Your task to perform on an android device: choose inbox layout in the gmail app Image 0: 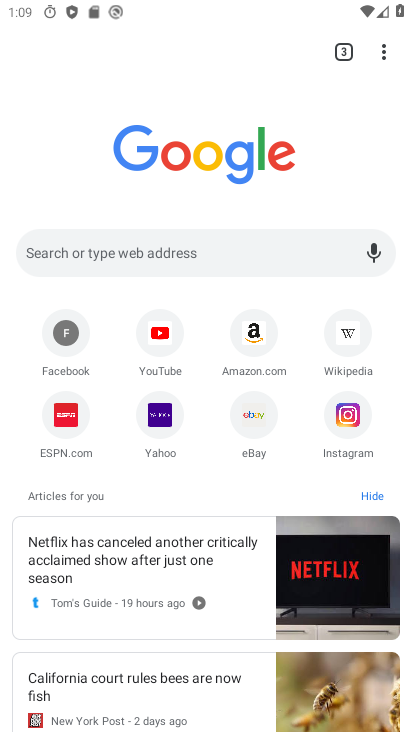
Step 0: drag from (379, 46) to (85, 154)
Your task to perform on an android device: choose inbox layout in the gmail app Image 1: 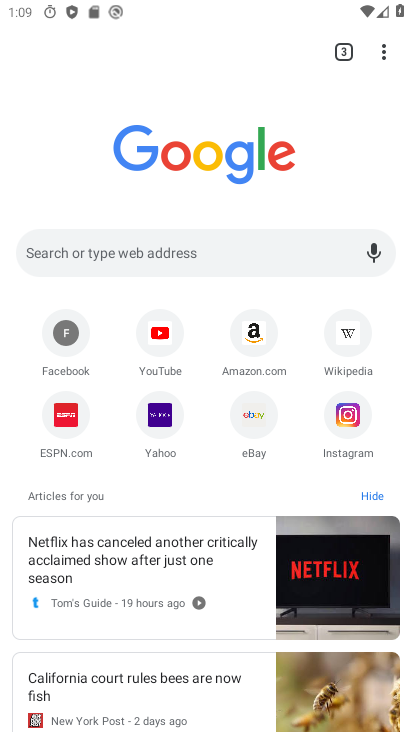
Step 1: press home button
Your task to perform on an android device: choose inbox layout in the gmail app Image 2: 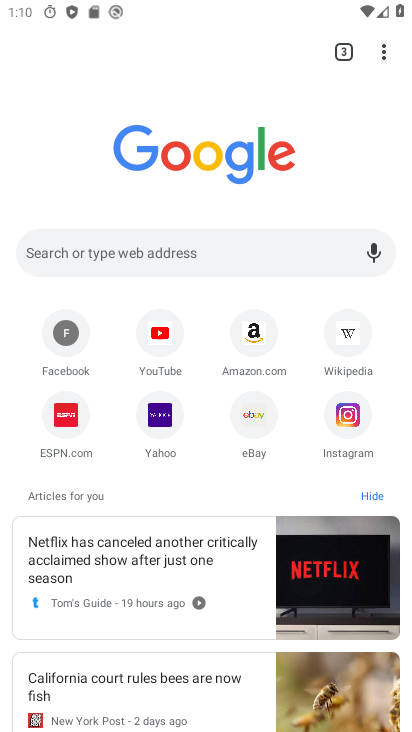
Step 2: drag from (148, 585) to (214, 170)
Your task to perform on an android device: choose inbox layout in the gmail app Image 3: 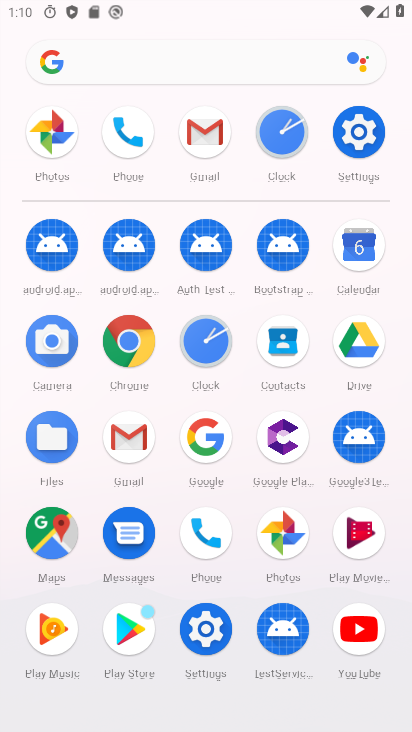
Step 3: click (131, 437)
Your task to perform on an android device: choose inbox layout in the gmail app Image 4: 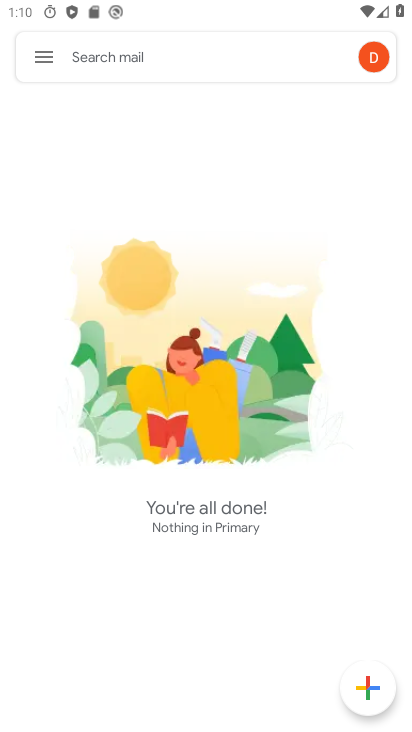
Step 4: click (37, 59)
Your task to perform on an android device: choose inbox layout in the gmail app Image 5: 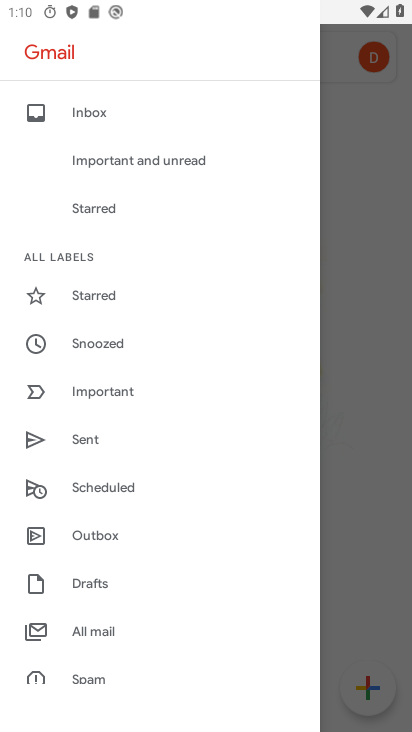
Step 5: click (99, 116)
Your task to perform on an android device: choose inbox layout in the gmail app Image 6: 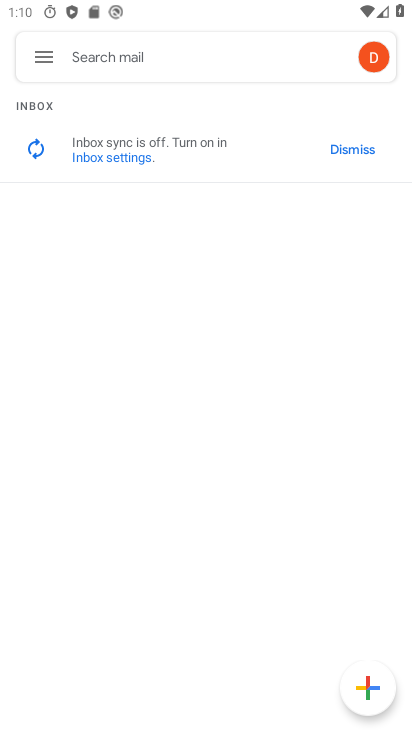
Step 6: task complete